Your task to perform on an android device: turn off smart reply in the gmail app Image 0: 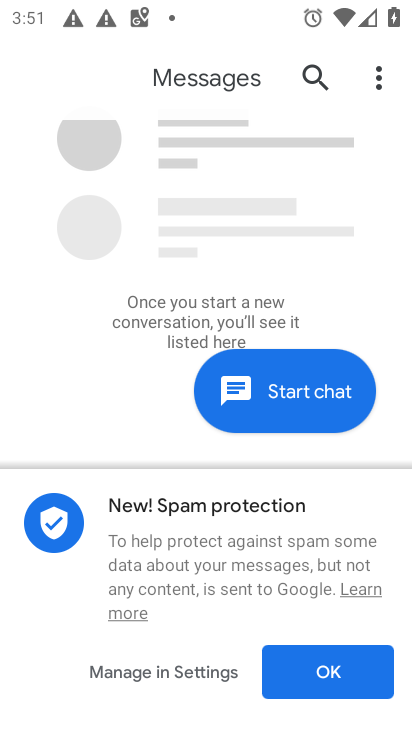
Step 0: press home button
Your task to perform on an android device: turn off smart reply in the gmail app Image 1: 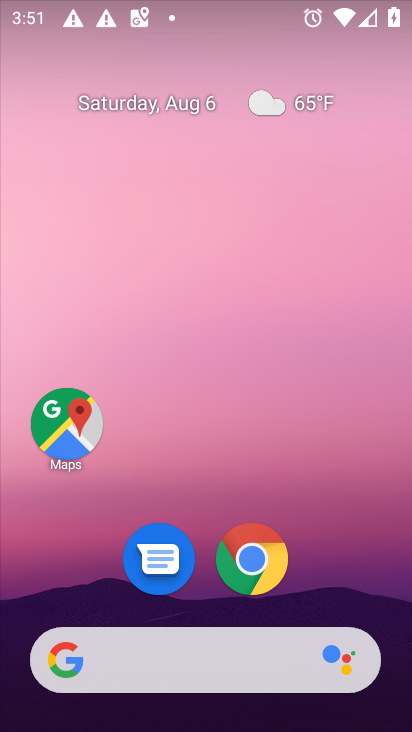
Step 1: drag from (337, 575) to (365, 80)
Your task to perform on an android device: turn off smart reply in the gmail app Image 2: 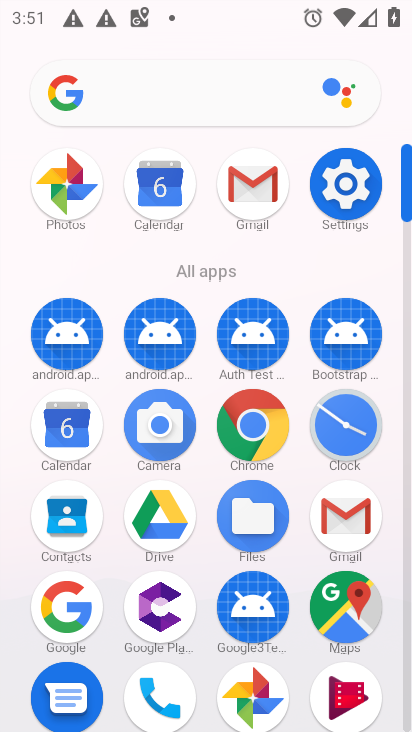
Step 2: click (245, 166)
Your task to perform on an android device: turn off smart reply in the gmail app Image 3: 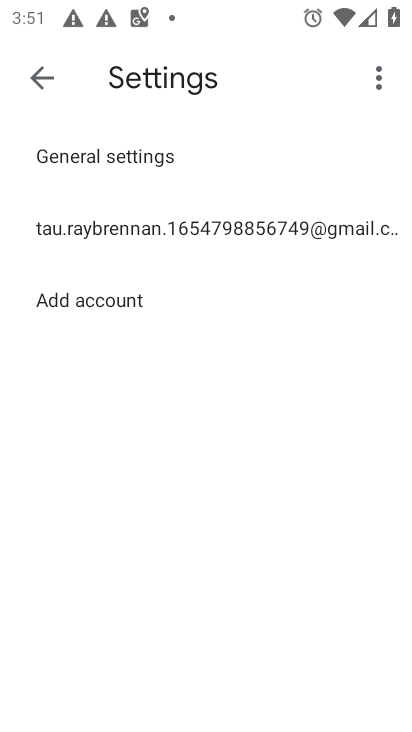
Step 3: click (151, 219)
Your task to perform on an android device: turn off smart reply in the gmail app Image 4: 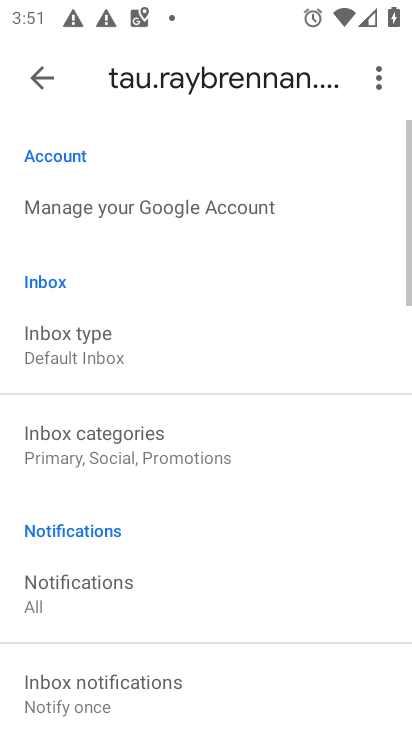
Step 4: drag from (143, 504) to (271, 6)
Your task to perform on an android device: turn off smart reply in the gmail app Image 5: 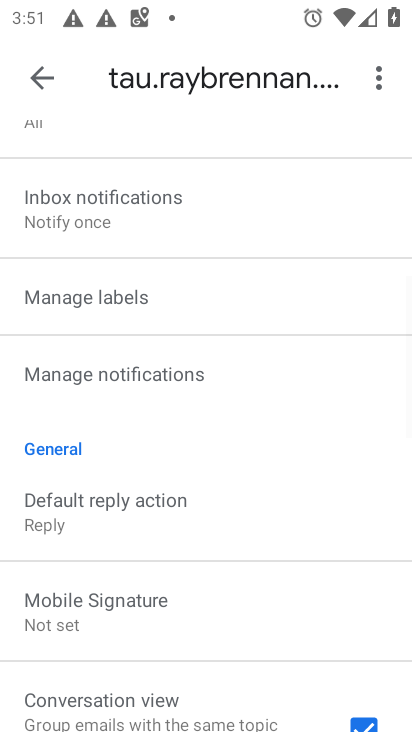
Step 5: drag from (156, 397) to (261, 0)
Your task to perform on an android device: turn off smart reply in the gmail app Image 6: 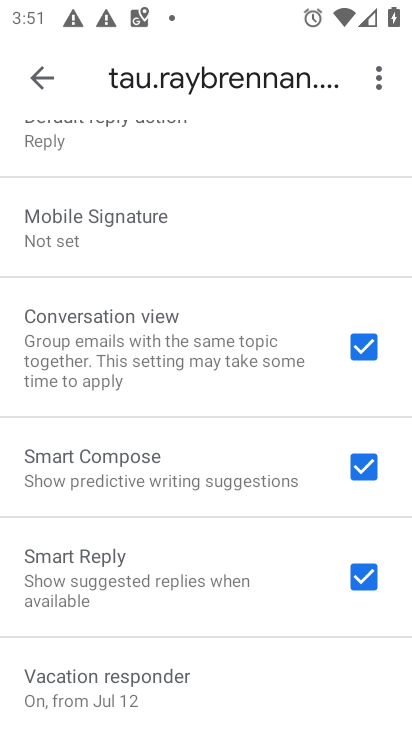
Step 6: click (369, 574)
Your task to perform on an android device: turn off smart reply in the gmail app Image 7: 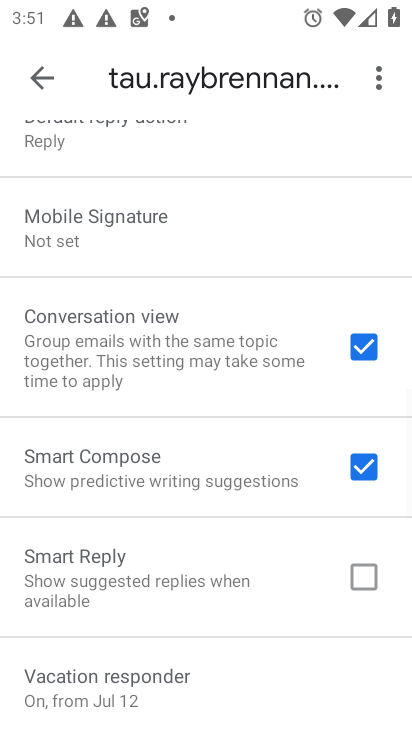
Step 7: task complete